Your task to perform on an android device: toggle improve location accuracy Image 0: 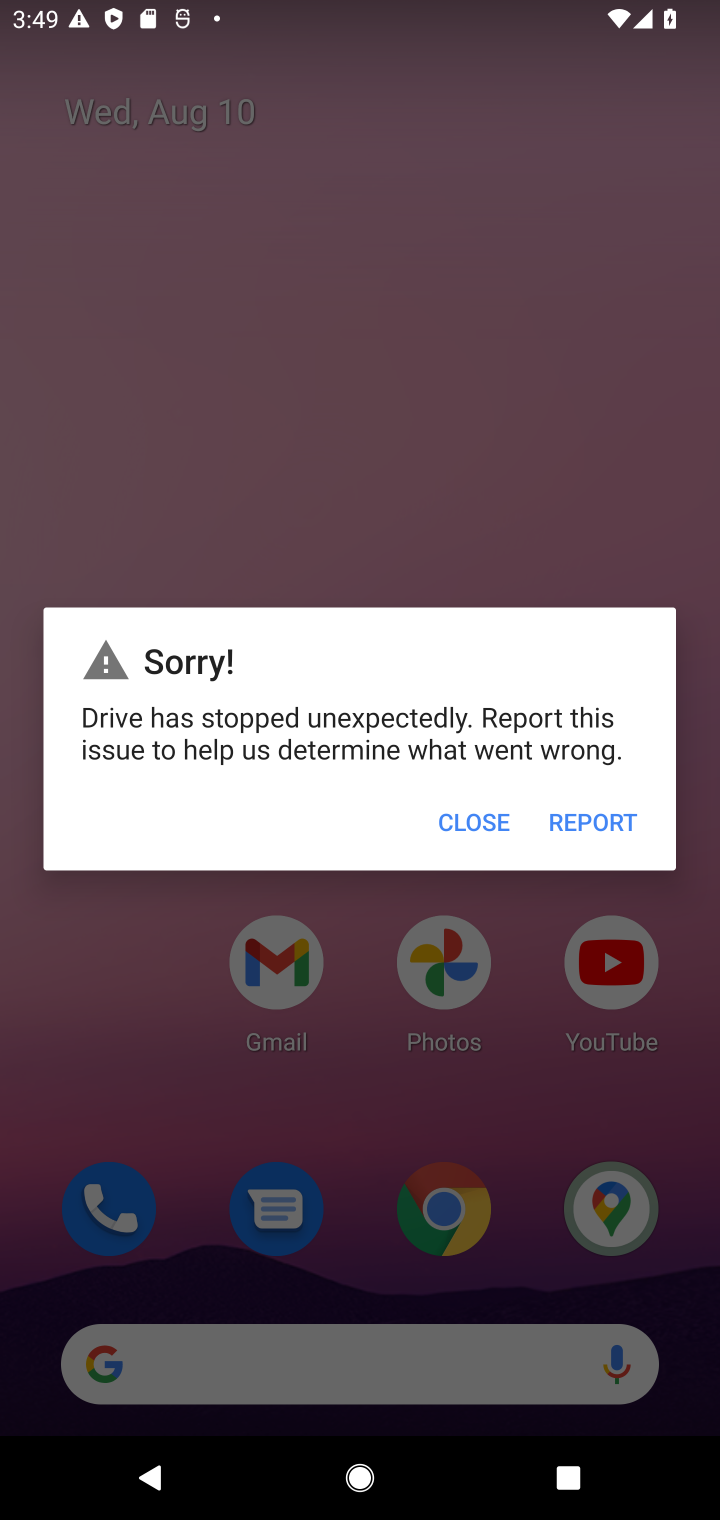
Step 0: click (419, 351)
Your task to perform on an android device: toggle improve location accuracy Image 1: 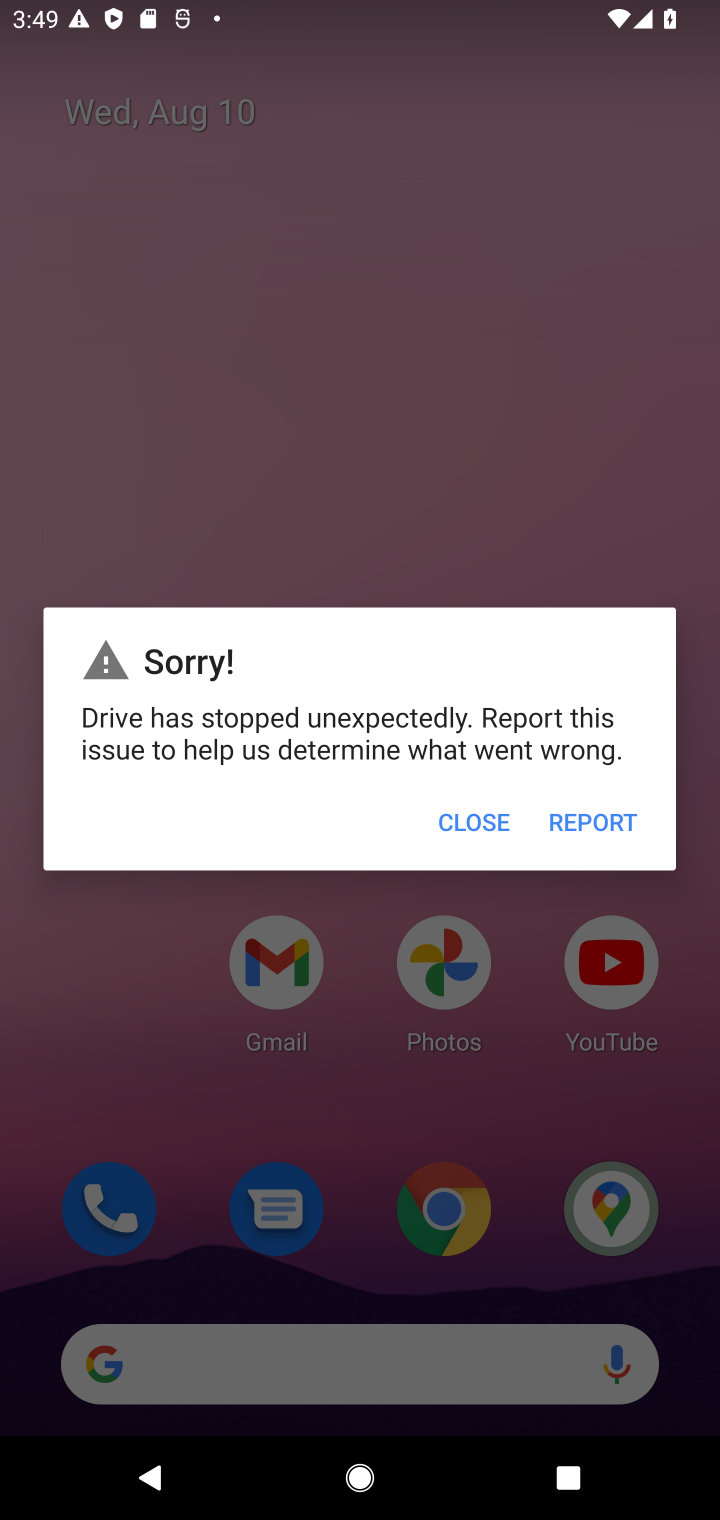
Step 1: click (464, 832)
Your task to perform on an android device: toggle improve location accuracy Image 2: 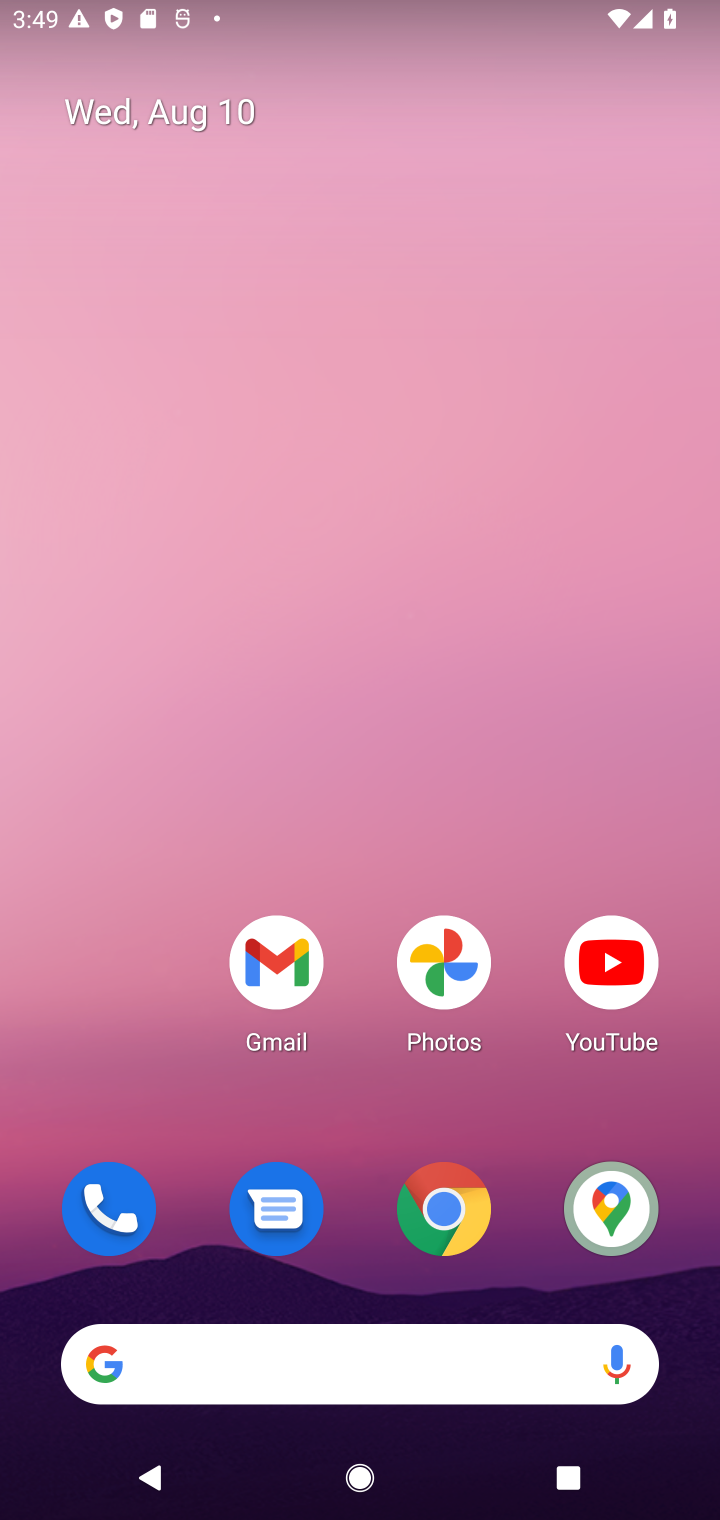
Step 2: drag from (350, 1297) to (496, 576)
Your task to perform on an android device: toggle improve location accuracy Image 3: 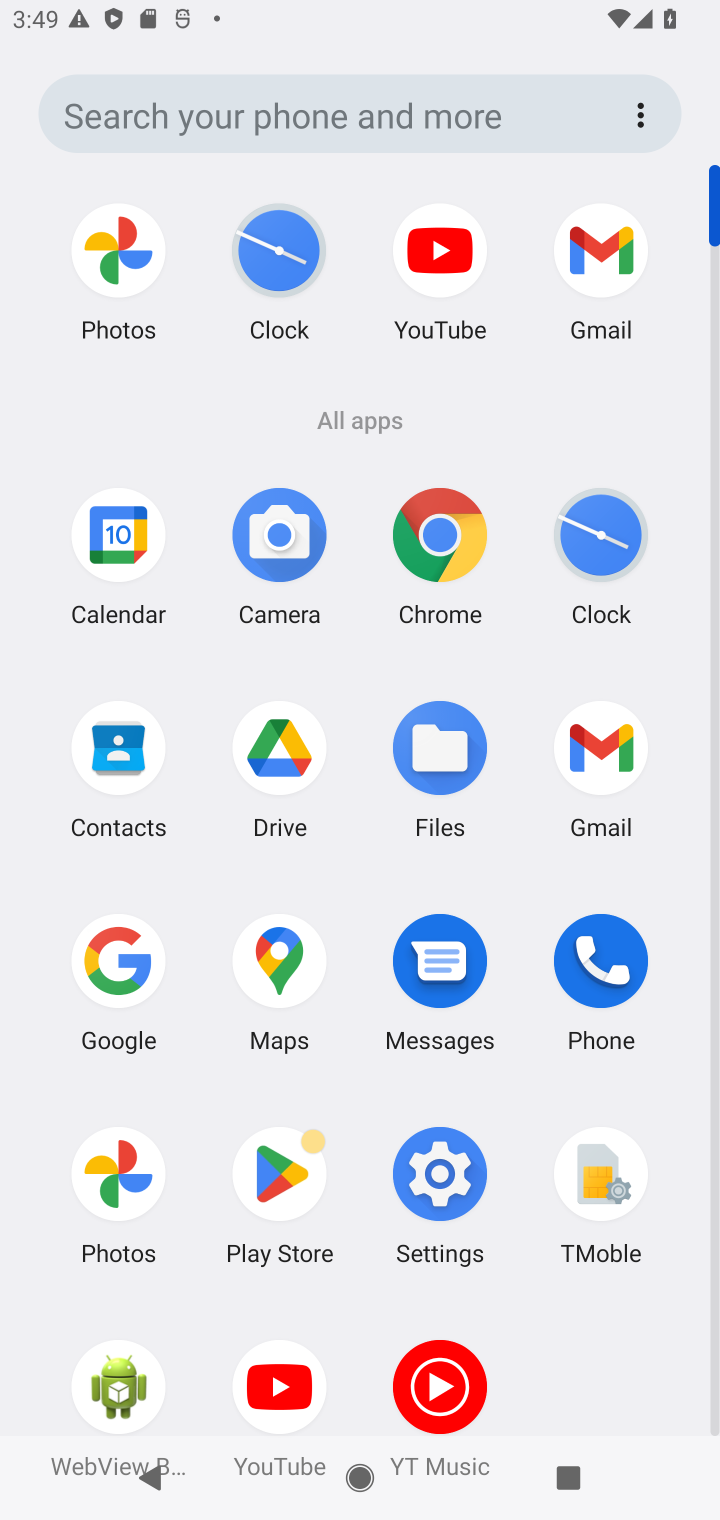
Step 3: click (472, 1167)
Your task to perform on an android device: toggle improve location accuracy Image 4: 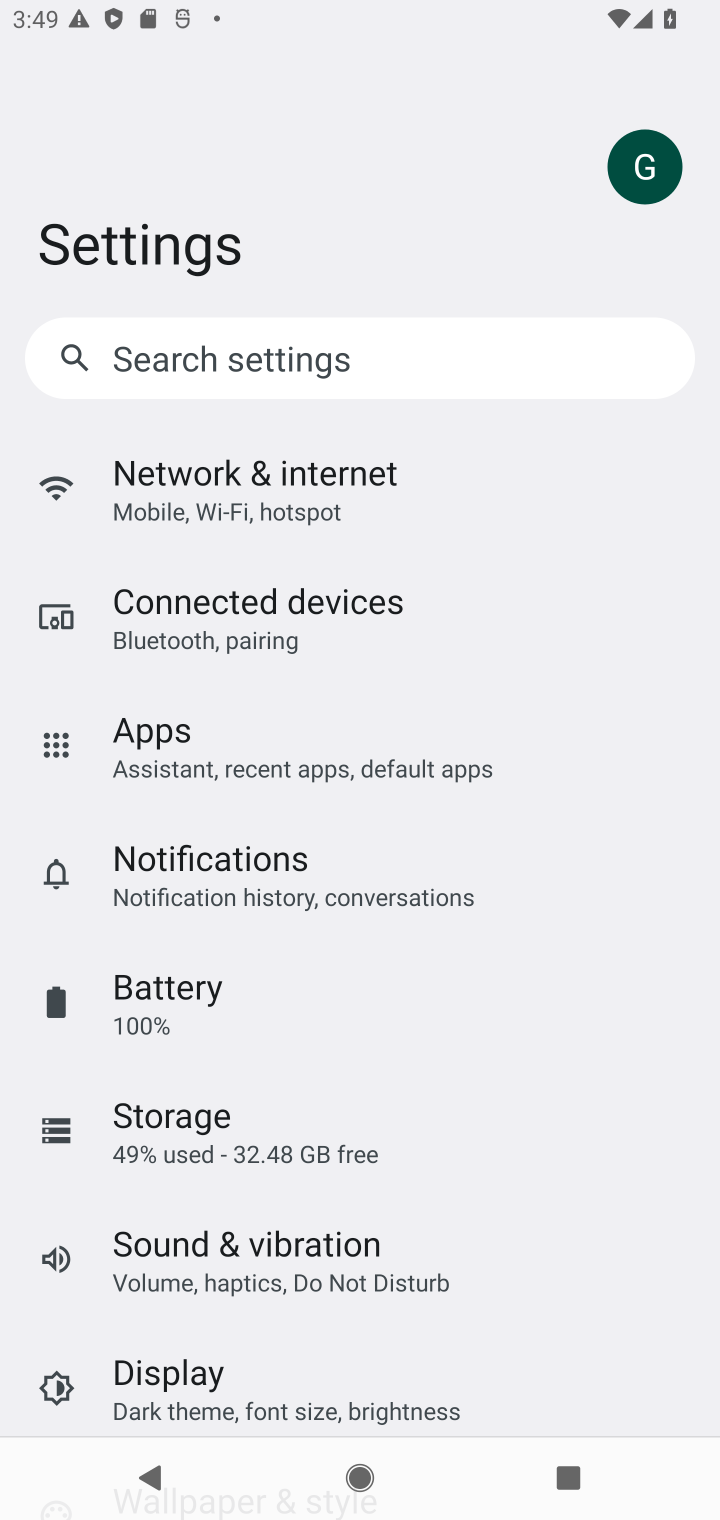
Step 4: drag from (240, 1314) to (250, 398)
Your task to perform on an android device: toggle improve location accuracy Image 5: 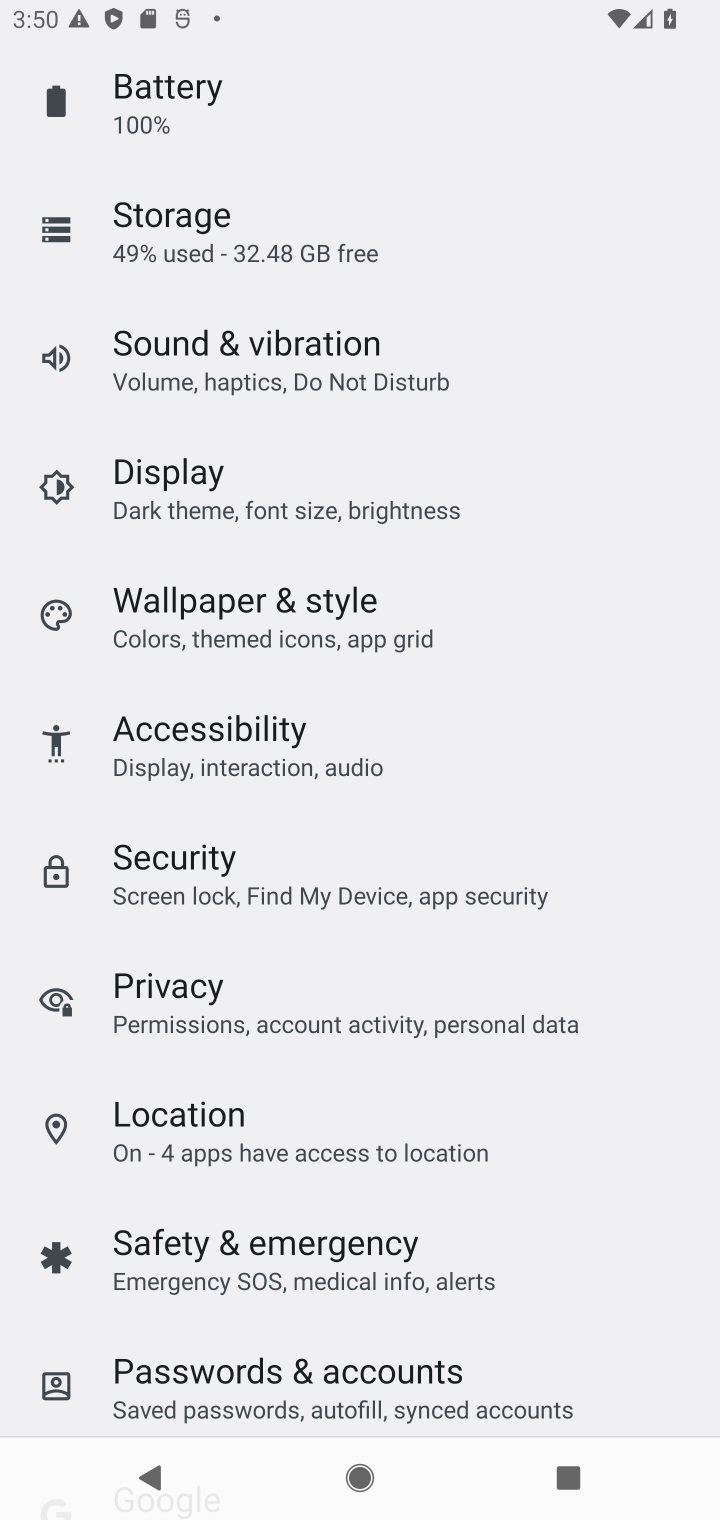
Step 5: click (188, 1127)
Your task to perform on an android device: toggle improve location accuracy Image 6: 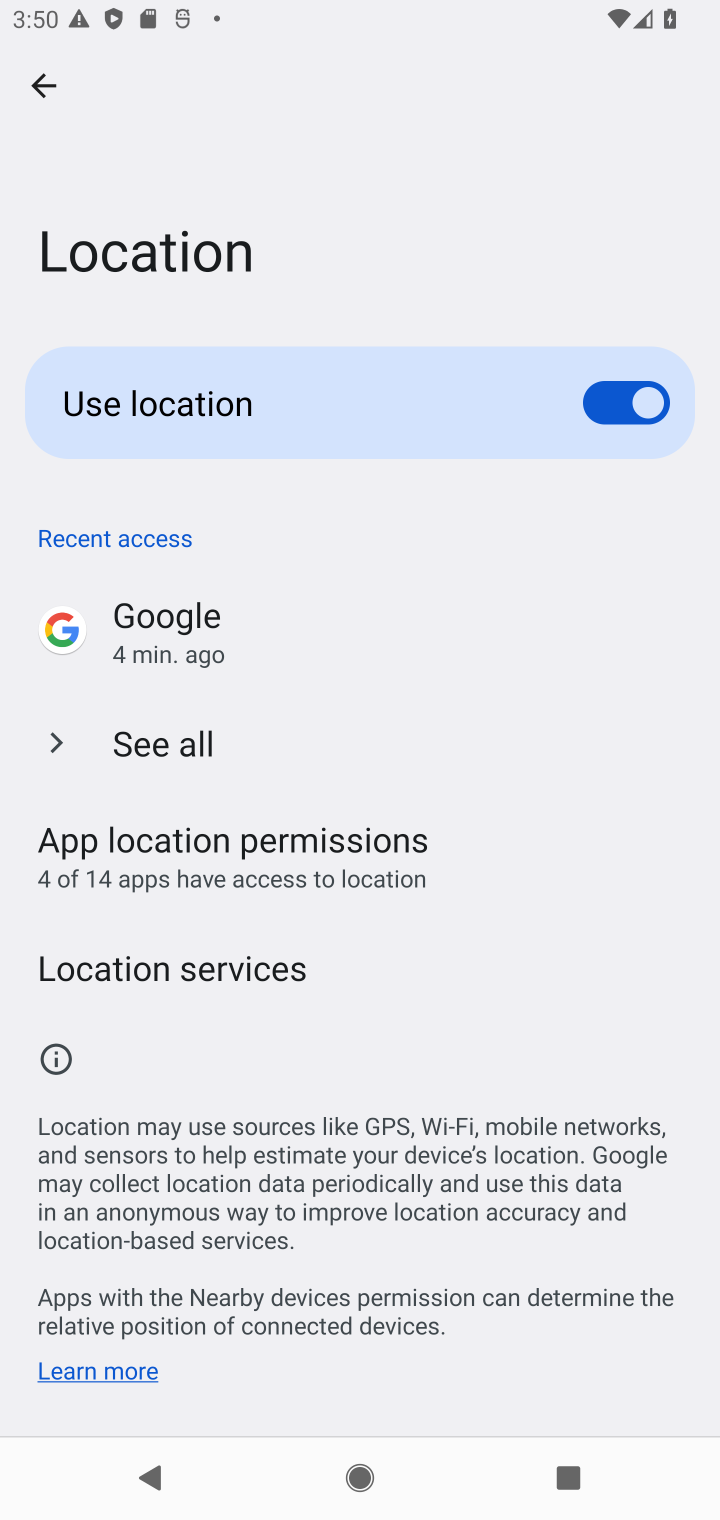
Step 6: click (100, 964)
Your task to perform on an android device: toggle improve location accuracy Image 7: 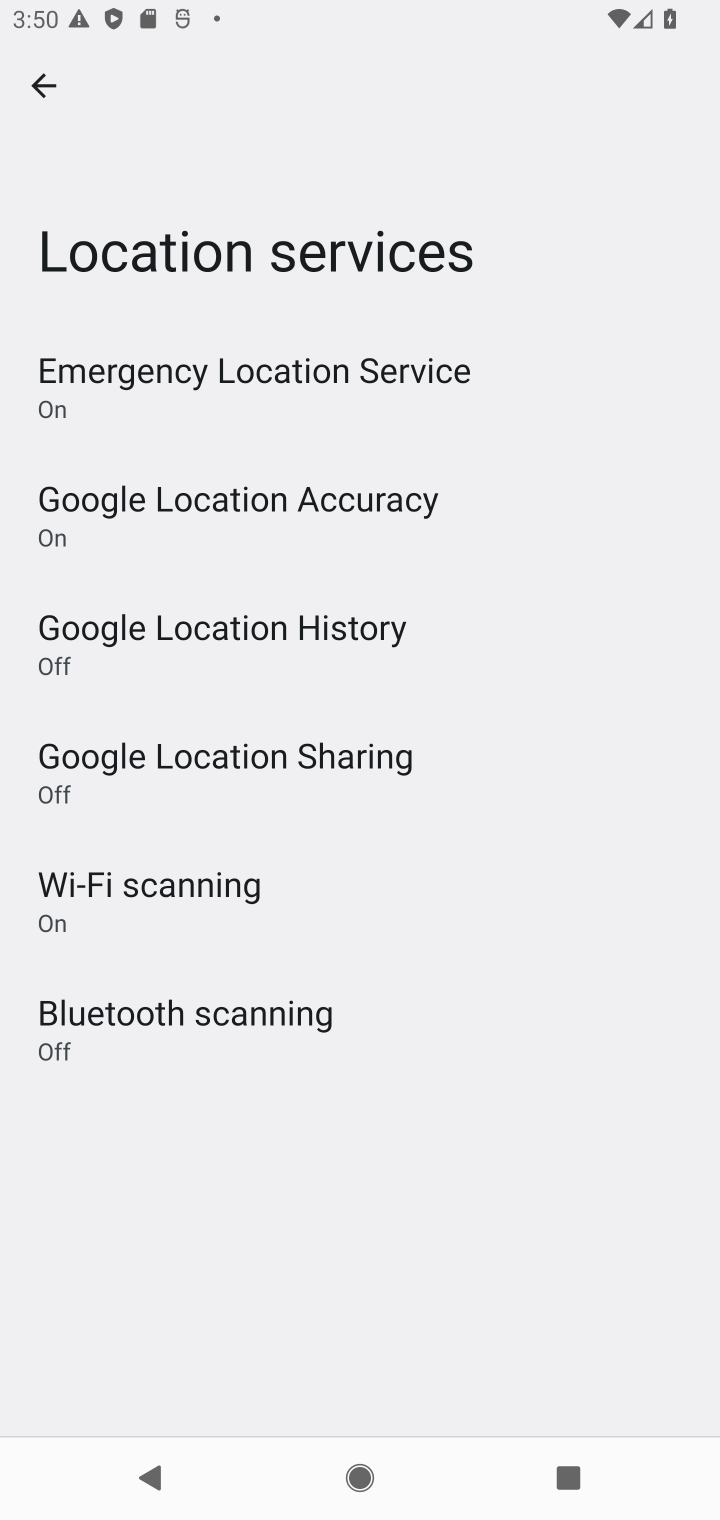
Step 7: task complete